Your task to perform on an android device: turn pop-ups off in chrome Image 0: 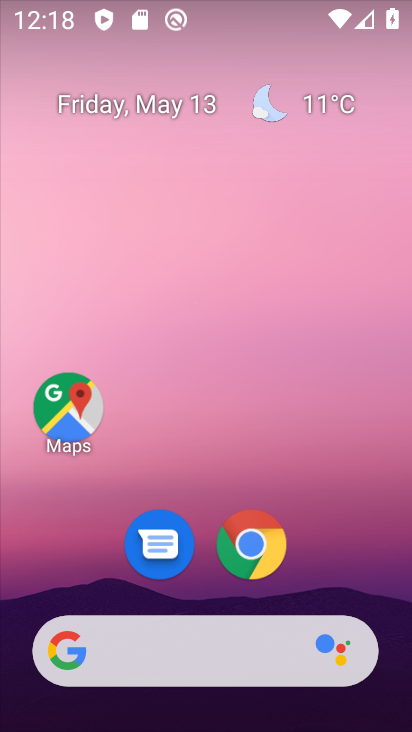
Step 0: click (292, 544)
Your task to perform on an android device: turn pop-ups off in chrome Image 1: 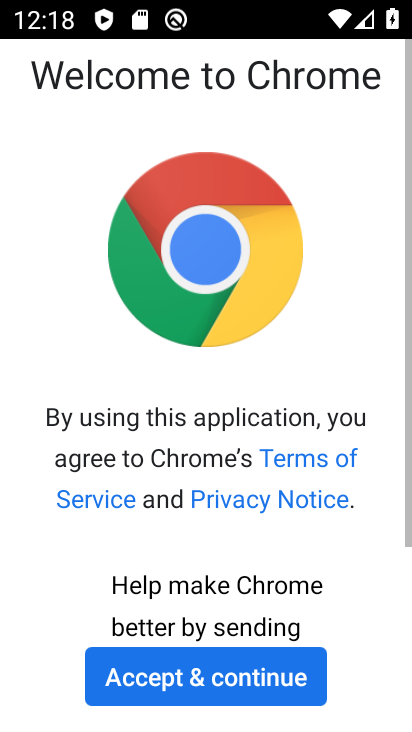
Step 1: click (262, 701)
Your task to perform on an android device: turn pop-ups off in chrome Image 2: 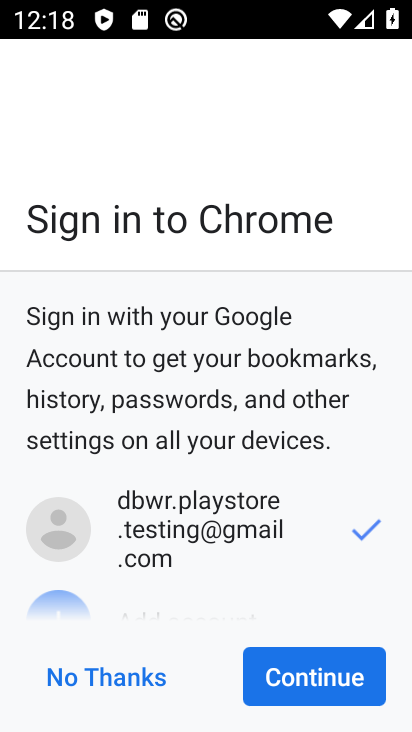
Step 2: click (286, 679)
Your task to perform on an android device: turn pop-ups off in chrome Image 3: 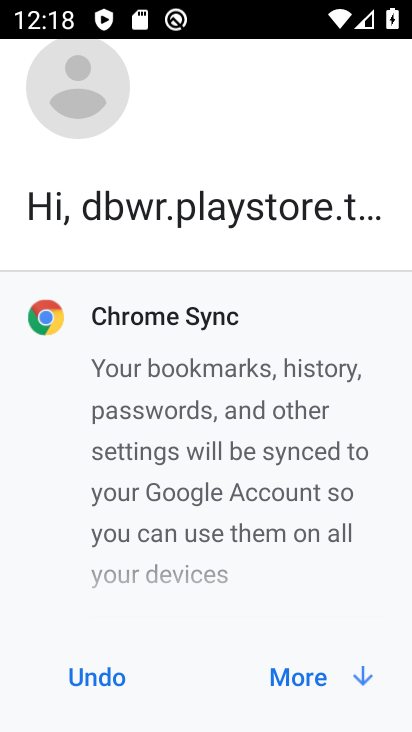
Step 3: click (308, 684)
Your task to perform on an android device: turn pop-ups off in chrome Image 4: 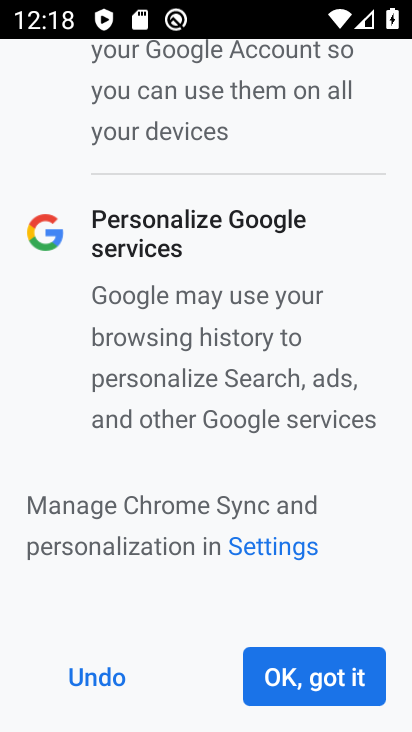
Step 4: click (323, 684)
Your task to perform on an android device: turn pop-ups off in chrome Image 5: 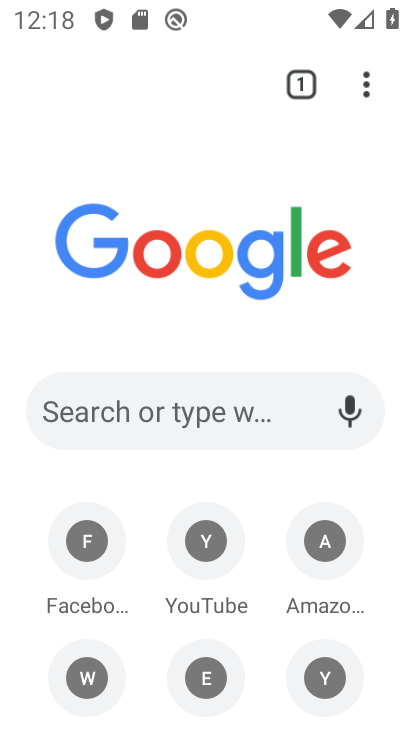
Step 5: click (373, 74)
Your task to perform on an android device: turn pop-ups off in chrome Image 6: 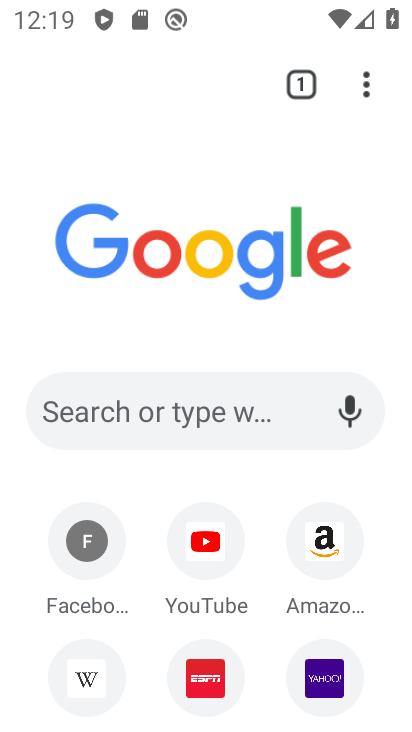
Step 6: drag from (371, 88) to (248, 616)
Your task to perform on an android device: turn pop-ups off in chrome Image 7: 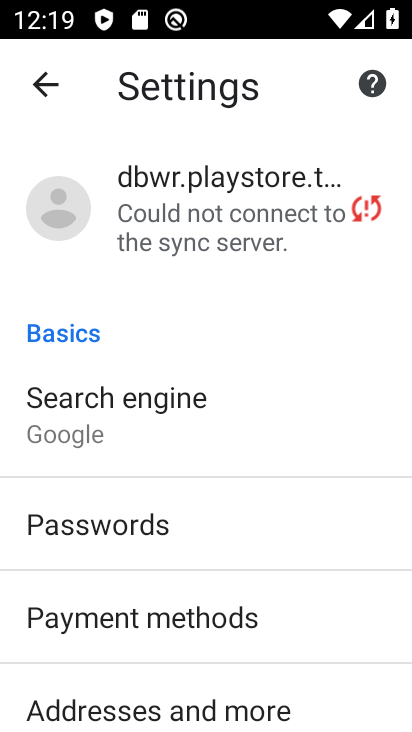
Step 7: drag from (198, 635) to (210, 166)
Your task to perform on an android device: turn pop-ups off in chrome Image 8: 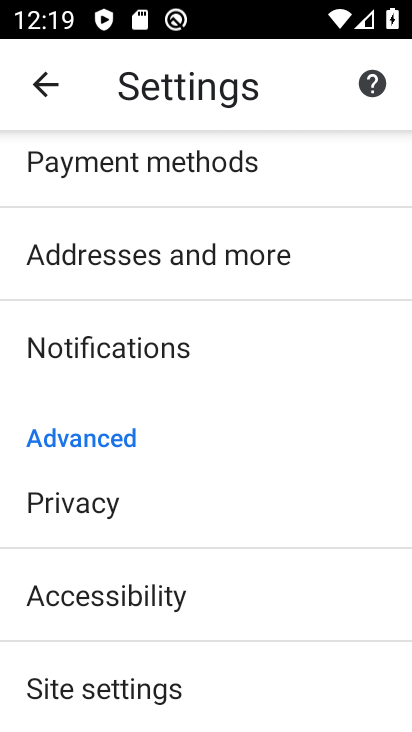
Step 8: drag from (178, 622) to (188, 323)
Your task to perform on an android device: turn pop-ups off in chrome Image 9: 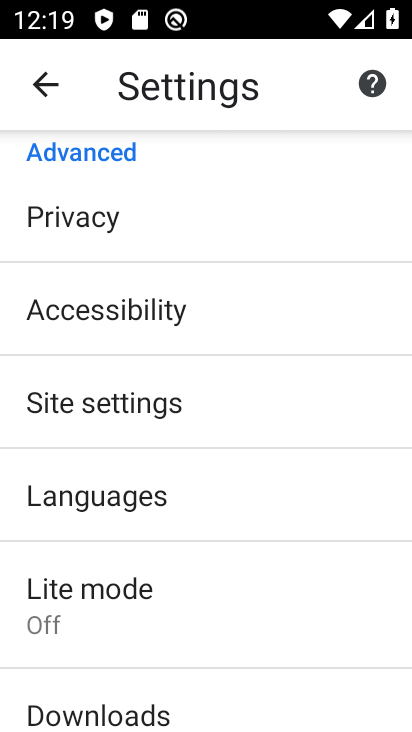
Step 9: click (156, 420)
Your task to perform on an android device: turn pop-ups off in chrome Image 10: 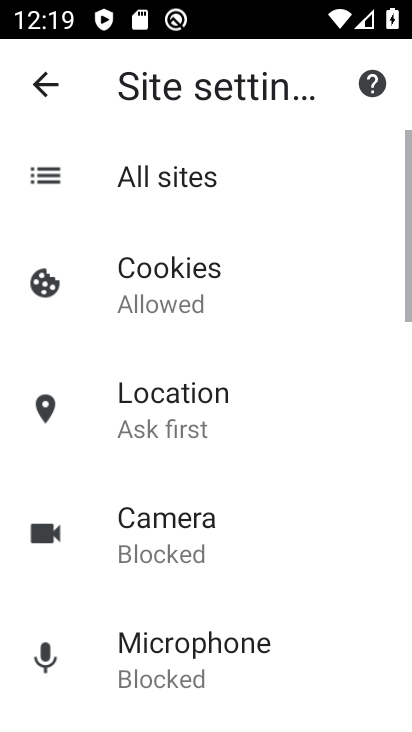
Step 10: drag from (204, 591) to (211, 226)
Your task to perform on an android device: turn pop-ups off in chrome Image 11: 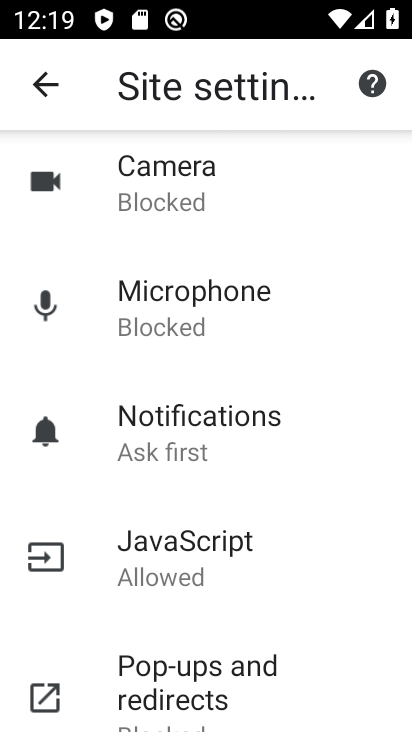
Step 11: click (217, 662)
Your task to perform on an android device: turn pop-ups off in chrome Image 12: 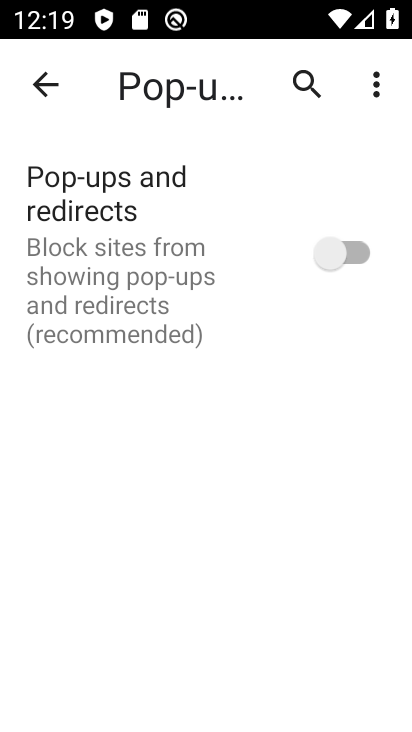
Step 12: task complete